Your task to perform on an android device: Go to ESPN.com Image 0: 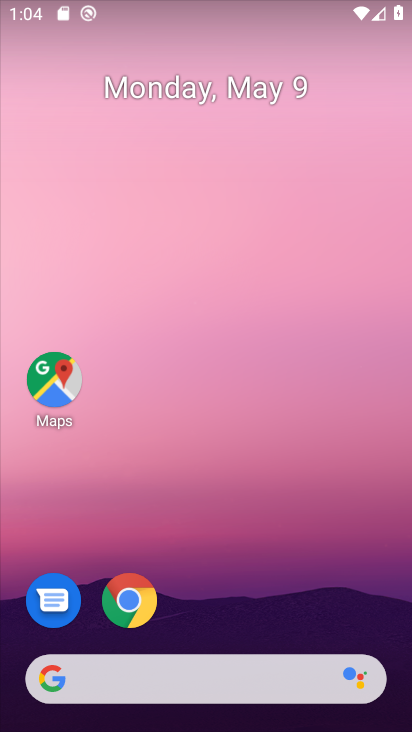
Step 0: click (129, 594)
Your task to perform on an android device: Go to ESPN.com Image 1: 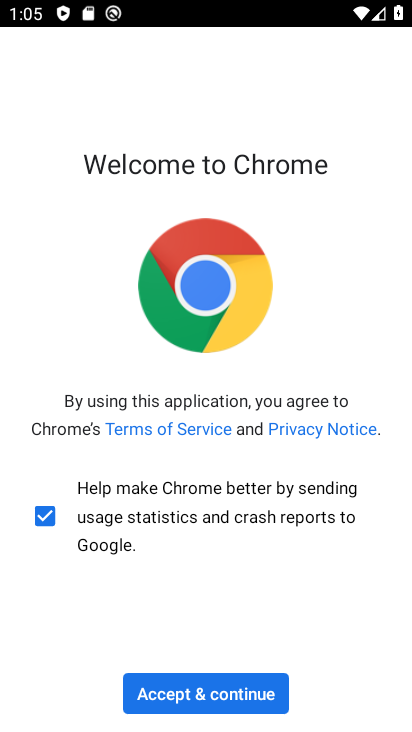
Step 1: click (167, 699)
Your task to perform on an android device: Go to ESPN.com Image 2: 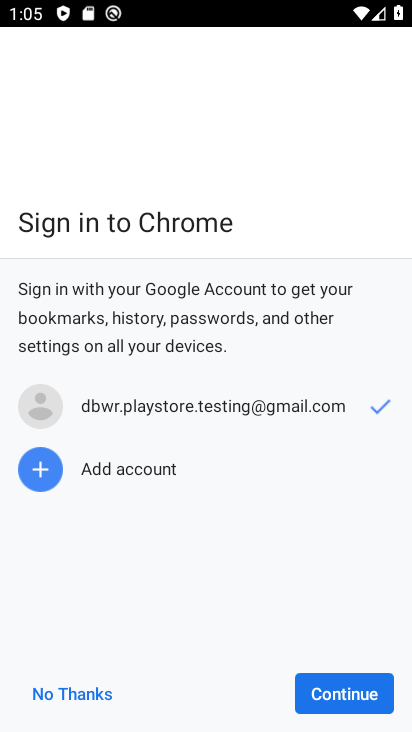
Step 2: click (357, 691)
Your task to perform on an android device: Go to ESPN.com Image 3: 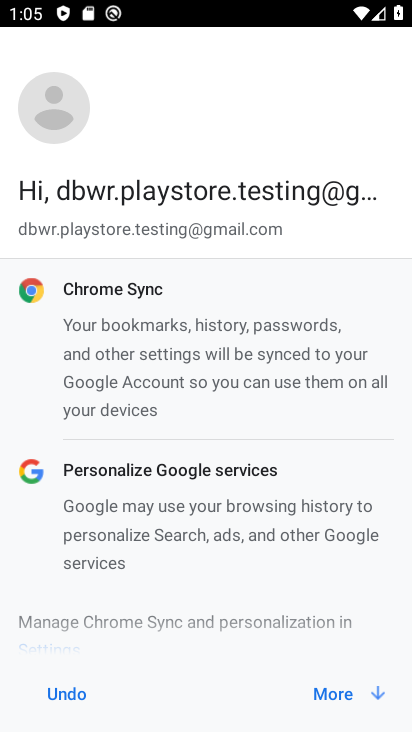
Step 3: click (357, 691)
Your task to perform on an android device: Go to ESPN.com Image 4: 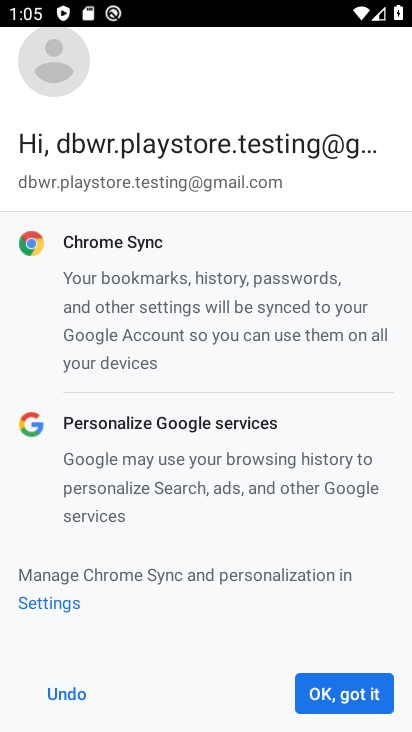
Step 4: click (353, 691)
Your task to perform on an android device: Go to ESPN.com Image 5: 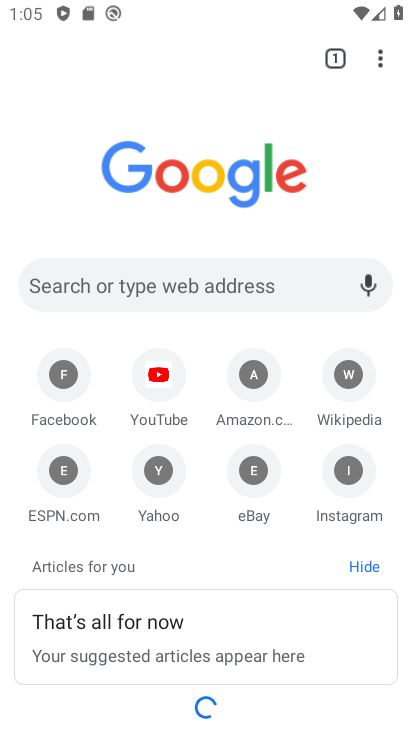
Step 5: click (62, 464)
Your task to perform on an android device: Go to ESPN.com Image 6: 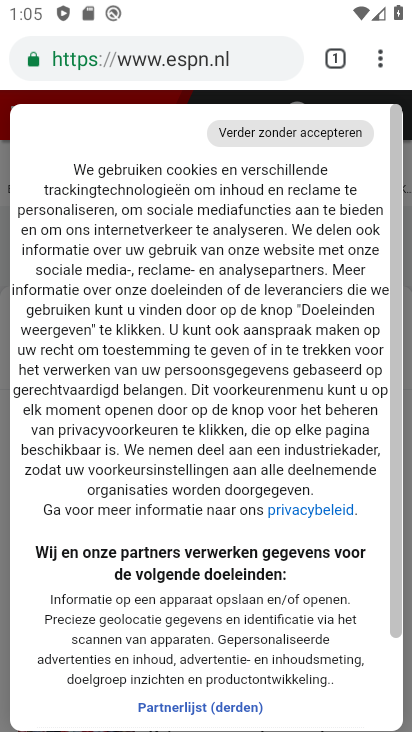
Step 6: task complete